Your task to perform on an android device: refresh tabs in the chrome app Image 0: 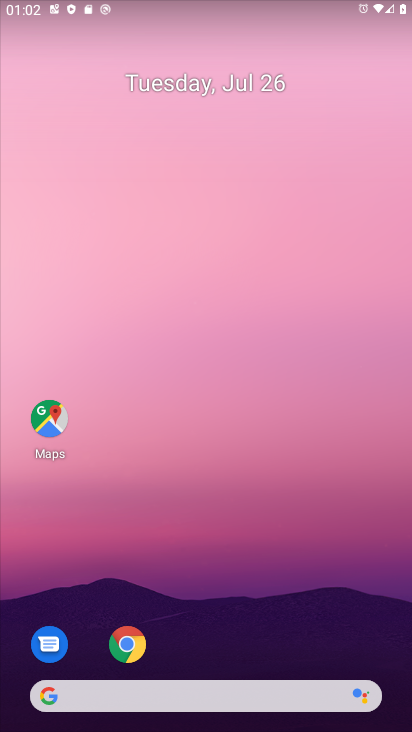
Step 0: drag from (270, 544) to (249, 224)
Your task to perform on an android device: refresh tabs in the chrome app Image 1: 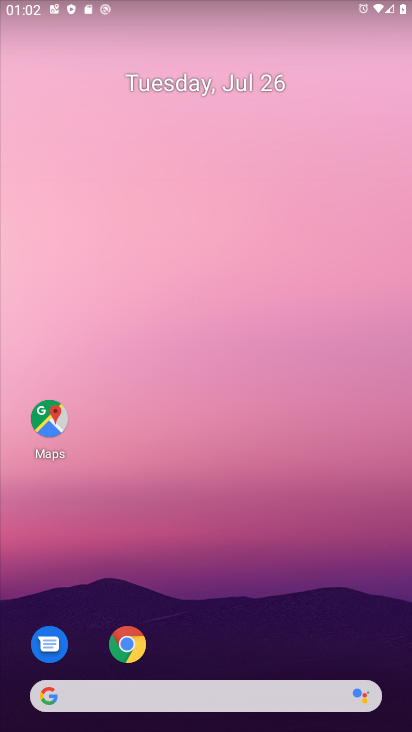
Step 1: drag from (223, 591) to (146, 101)
Your task to perform on an android device: refresh tabs in the chrome app Image 2: 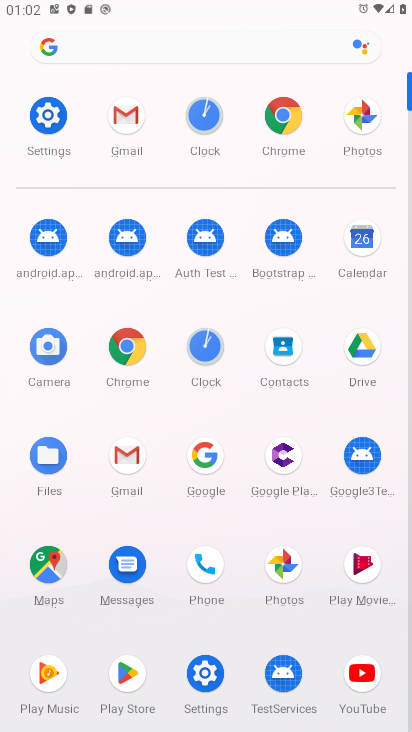
Step 2: click (271, 119)
Your task to perform on an android device: refresh tabs in the chrome app Image 3: 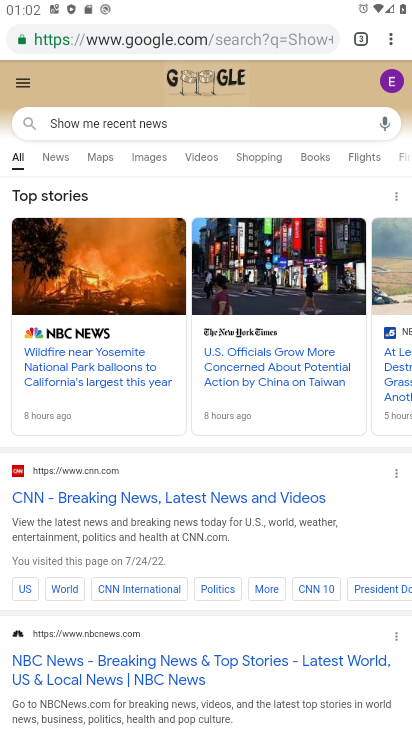
Step 3: click (393, 46)
Your task to perform on an android device: refresh tabs in the chrome app Image 4: 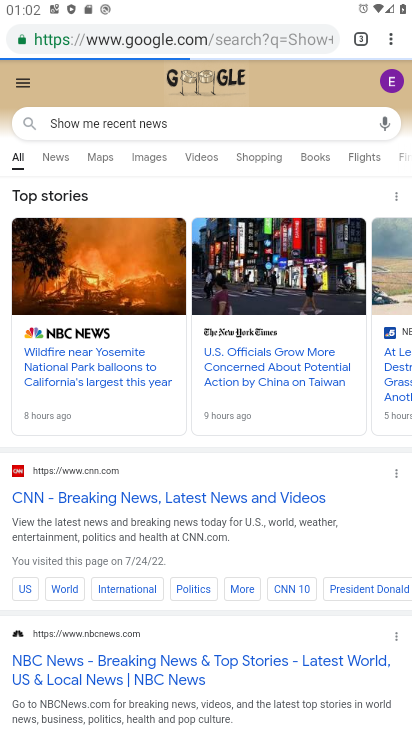
Step 4: click (397, 39)
Your task to perform on an android device: refresh tabs in the chrome app Image 5: 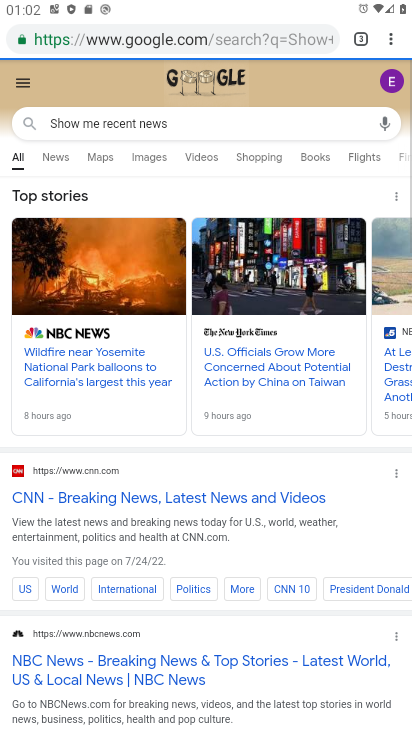
Step 5: click (401, 37)
Your task to perform on an android device: refresh tabs in the chrome app Image 6: 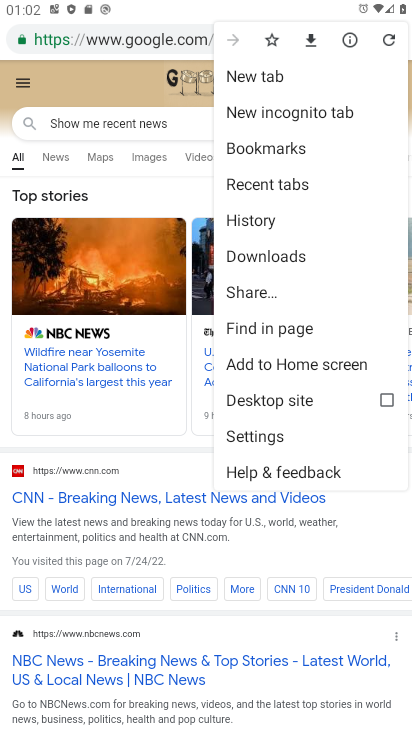
Step 6: click (387, 32)
Your task to perform on an android device: refresh tabs in the chrome app Image 7: 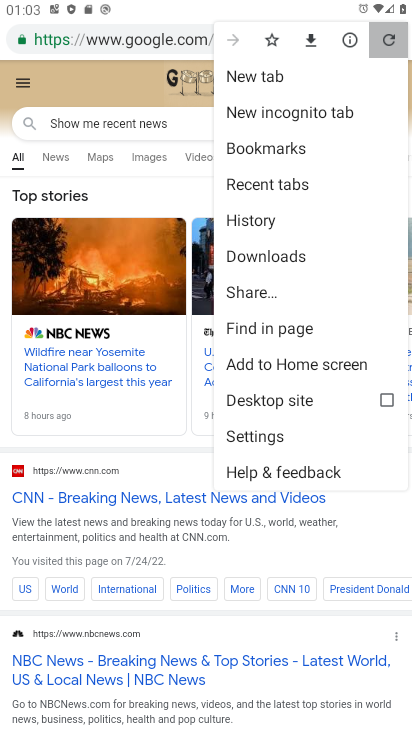
Step 7: click (387, 33)
Your task to perform on an android device: refresh tabs in the chrome app Image 8: 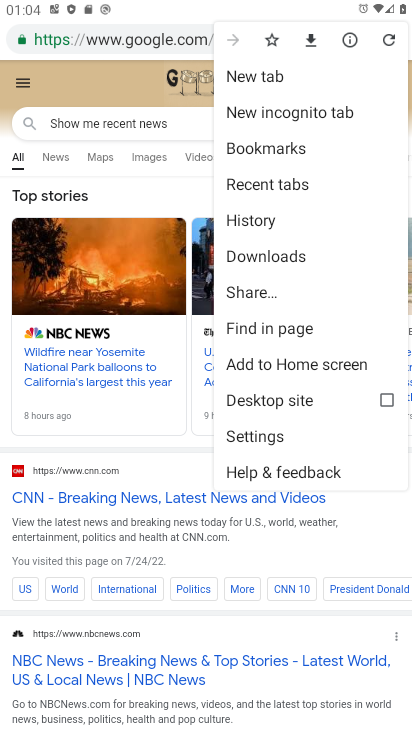
Step 8: task complete